Your task to perform on an android device: Open the map Image 0: 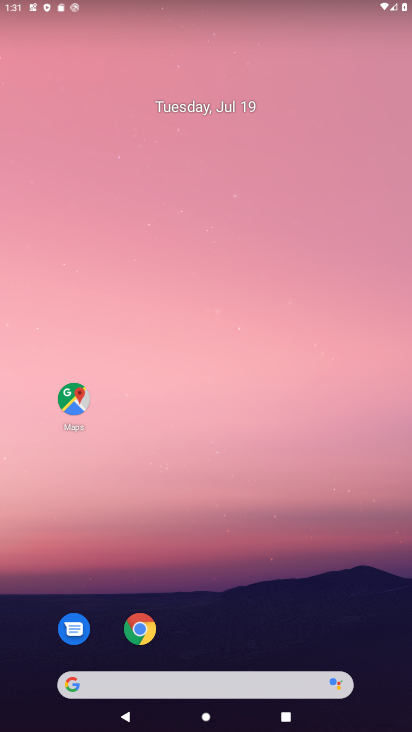
Step 0: click (75, 407)
Your task to perform on an android device: Open the map Image 1: 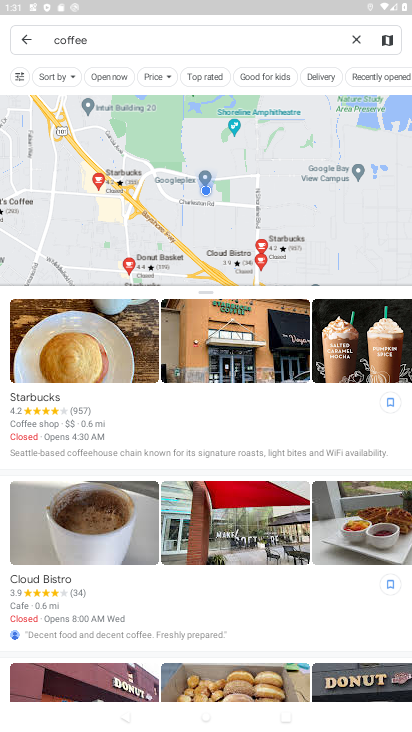
Step 1: task complete